Your task to perform on an android device: Clear the shopping cart on newegg.com. Search for jbl charge 4 on newegg.com, select the first entry, and add it to the cart. Image 0: 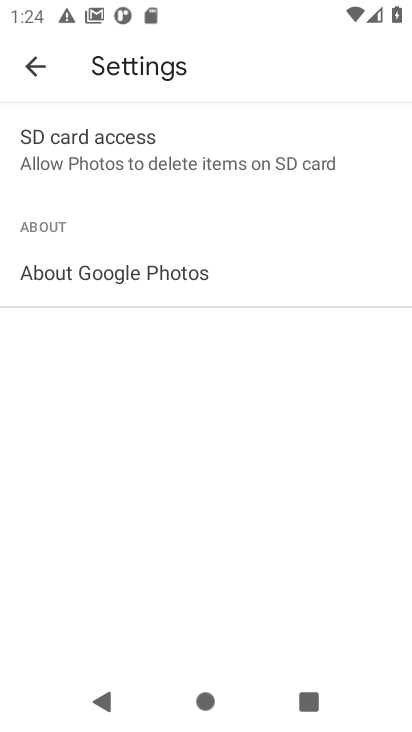
Step 0: press home button
Your task to perform on an android device: Clear the shopping cart on newegg.com. Search for jbl charge 4 on newegg.com, select the first entry, and add it to the cart. Image 1: 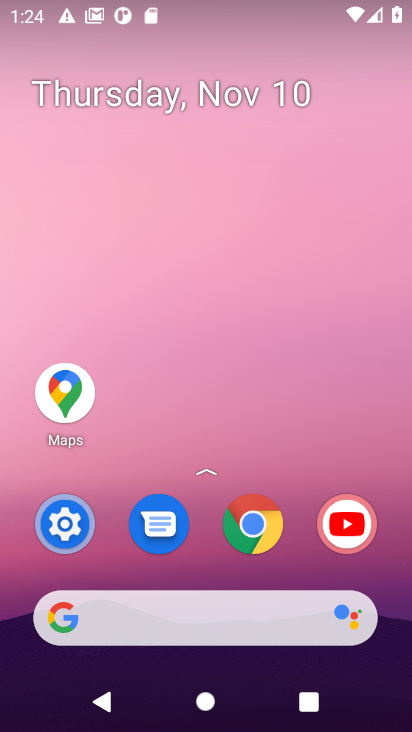
Step 1: click (261, 522)
Your task to perform on an android device: Clear the shopping cart on newegg.com. Search for jbl charge 4 on newegg.com, select the first entry, and add it to the cart. Image 2: 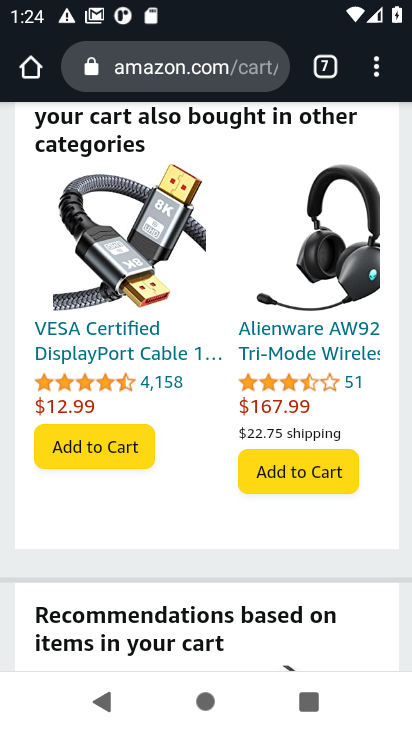
Step 2: click (317, 77)
Your task to perform on an android device: Clear the shopping cart on newegg.com. Search for jbl charge 4 on newegg.com, select the first entry, and add it to the cart. Image 3: 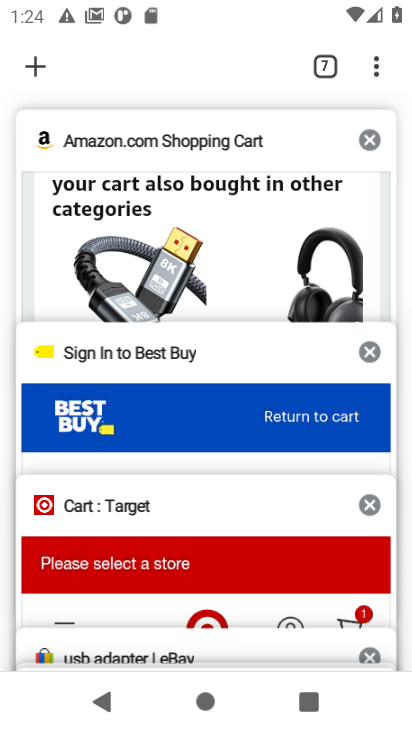
Step 3: drag from (159, 652) to (244, 333)
Your task to perform on an android device: Clear the shopping cart on newegg.com. Search for jbl charge 4 on newegg.com, select the first entry, and add it to the cart. Image 4: 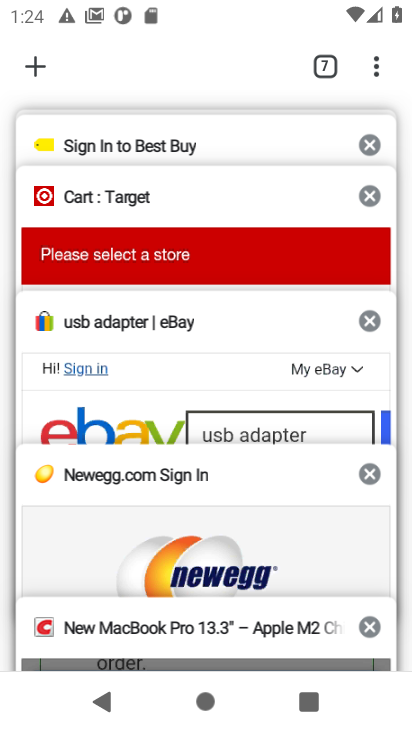
Step 4: click (195, 531)
Your task to perform on an android device: Clear the shopping cart on newegg.com. Search for jbl charge 4 on newegg.com, select the first entry, and add it to the cart. Image 5: 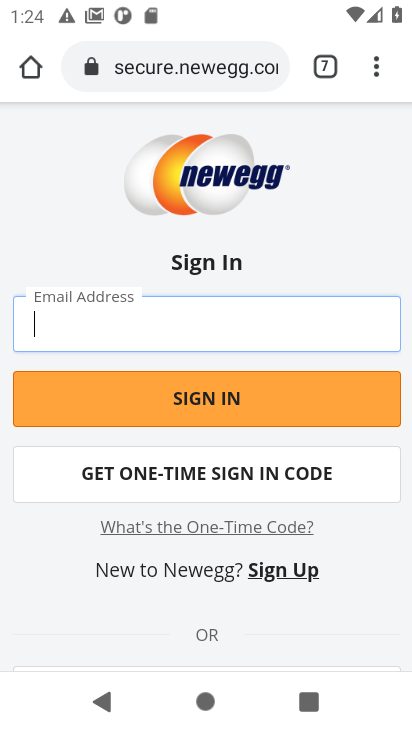
Step 5: press back button
Your task to perform on an android device: Clear the shopping cart on newegg.com. Search for jbl charge 4 on newegg.com, select the first entry, and add it to the cart. Image 6: 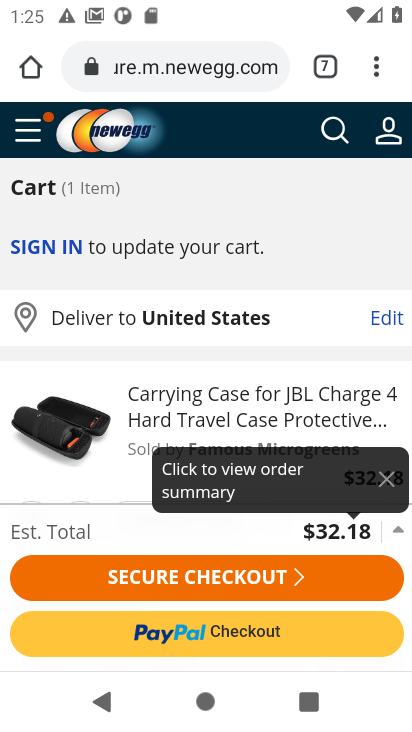
Step 6: drag from (71, 481) to (128, 301)
Your task to perform on an android device: Clear the shopping cart on newegg.com. Search for jbl charge 4 on newegg.com, select the first entry, and add it to the cart. Image 7: 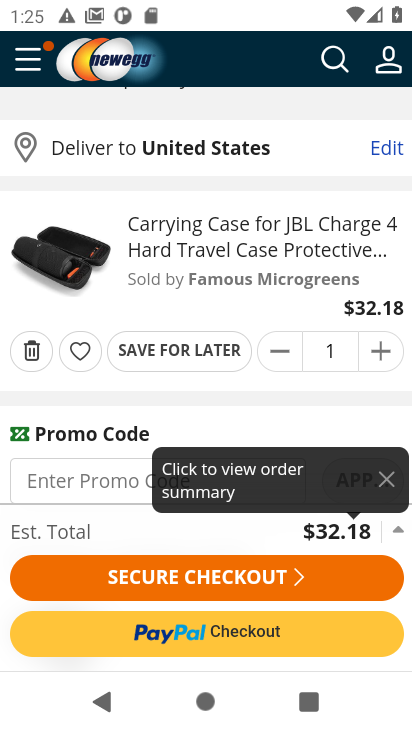
Step 7: click (35, 358)
Your task to perform on an android device: Clear the shopping cart on newegg.com. Search for jbl charge 4 on newegg.com, select the first entry, and add it to the cart. Image 8: 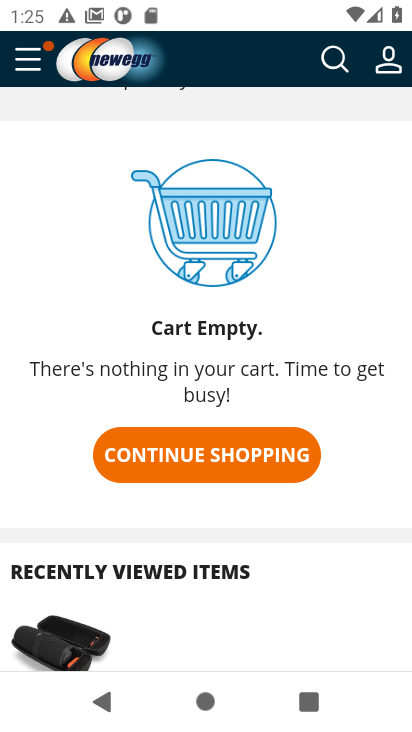
Step 8: click (335, 59)
Your task to perform on an android device: Clear the shopping cart on newegg.com. Search for jbl charge 4 on newegg.com, select the first entry, and add it to the cart. Image 9: 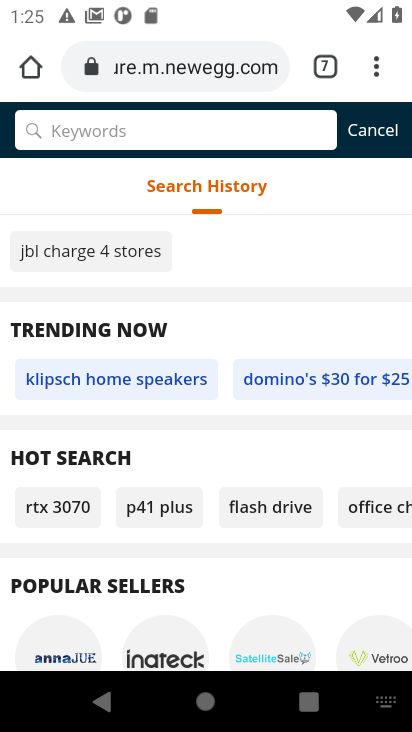
Step 9: type "jbl charge 4 "
Your task to perform on an android device: Clear the shopping cart on newegg.com. Search for jbl charge 4 on newegg.com, select the first entry, and add it to the cart. Image 10: 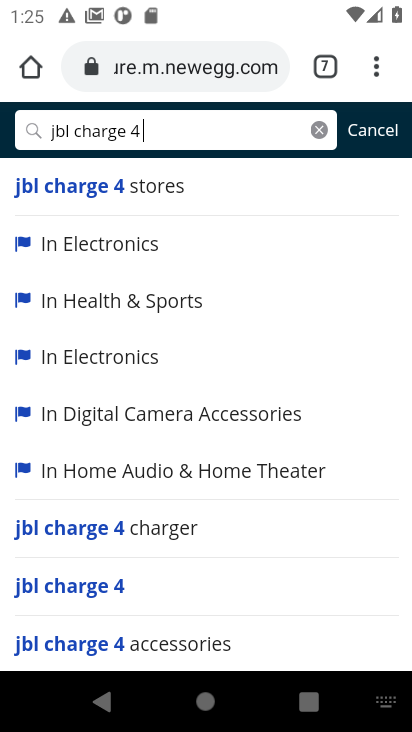
Step 10: click (65, 181)
Your task to perform on an android device: Clear the shopping cart on newegg.com. Search for jbl charge 4 on newegg.com, select the first entry, and add it to the cart. Image 11: 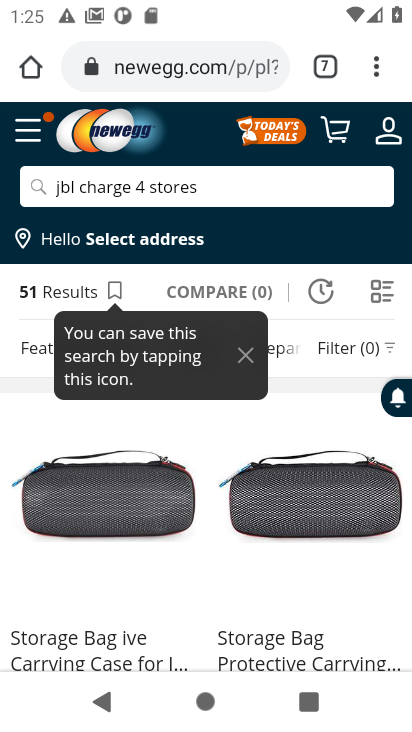
Step 11: drag from (155, 612) to (194, 427)
Your task to perform on an android device: Clear the shopping cart on newegg.com. Search for jbl charge 4 on newegg.com, select the first entry, and add it to the cart. Image 12: 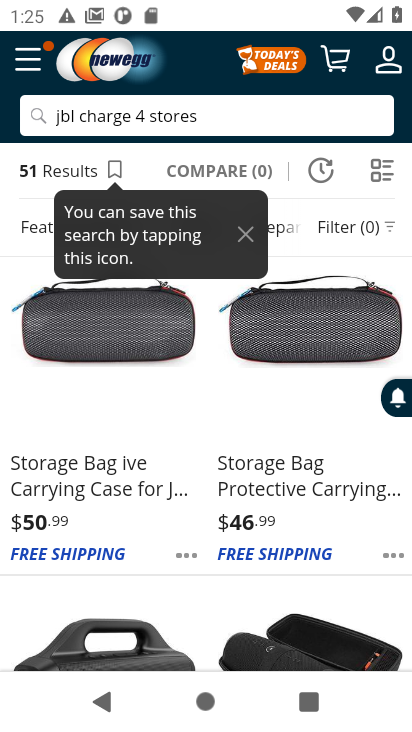
Step 12: drag from (165, 569) to (244, 187)
Your task to perform on an android device: Clear the shopping cart on newegg.com. Search for jbl charge 4 on newegg.com, select the first entry, and add it to the cart. Image 13: 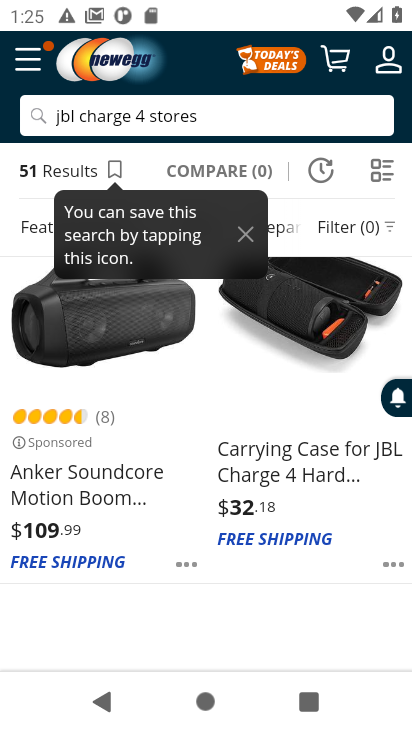
Step 13: click (285, 444)
Your task to perform on an android device: Clear the shopping cart on newegg.com. Search for jbl charge 4 on newegg.com, select the first entry, and add it to the cart. Image 14: 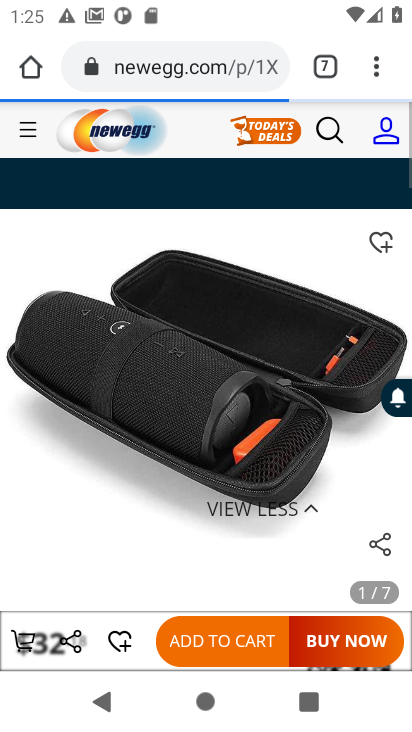
Step 14: click (224, 636)
Your task to perform on an android device: Clear the shopping cart on newegg.com. Search for jbl charge 4 on newegg.com, select the first entry, and add it to the cart. Image 15: 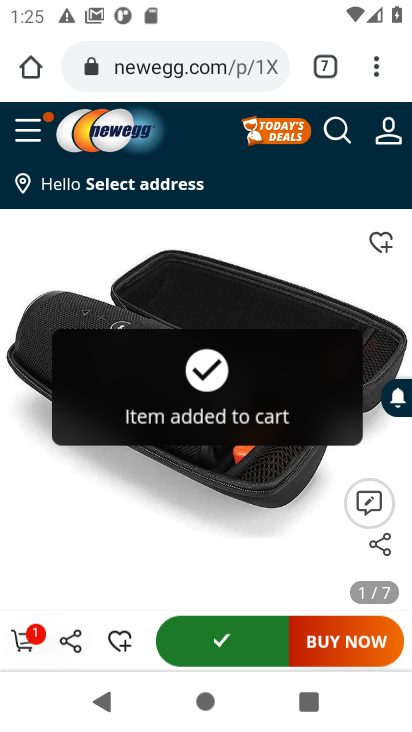
Step 15: task complete